Your task to perform on an android device: Open display settings Image 0: 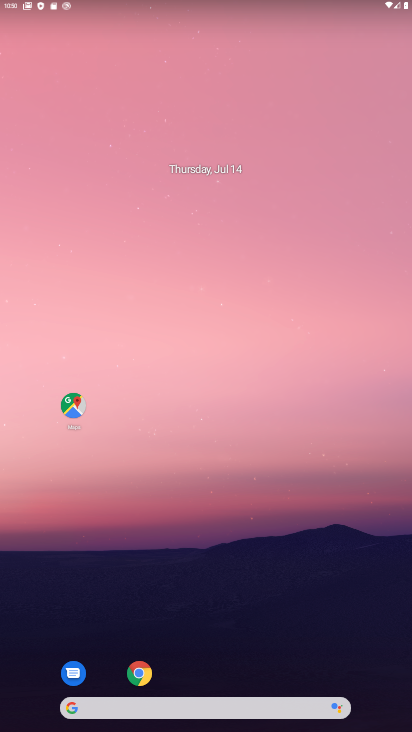
Step 0: drag from (227, 705) to (313, 96)
Your task to perform on an android device: Open display settings Image 1: 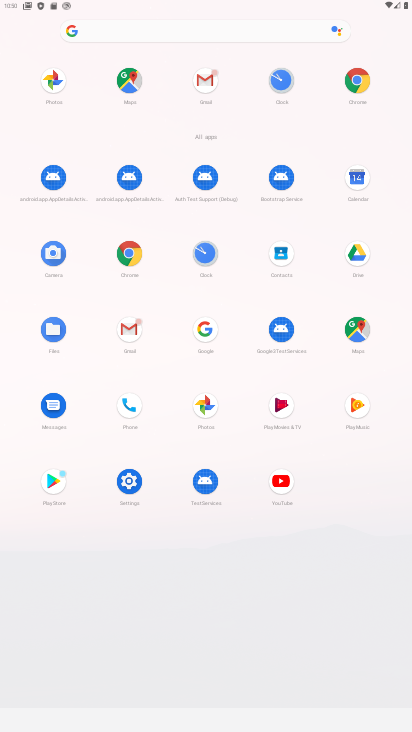
Step 1: click (134, 467)
Your task to perform on an android device: Open display settings Image 2: 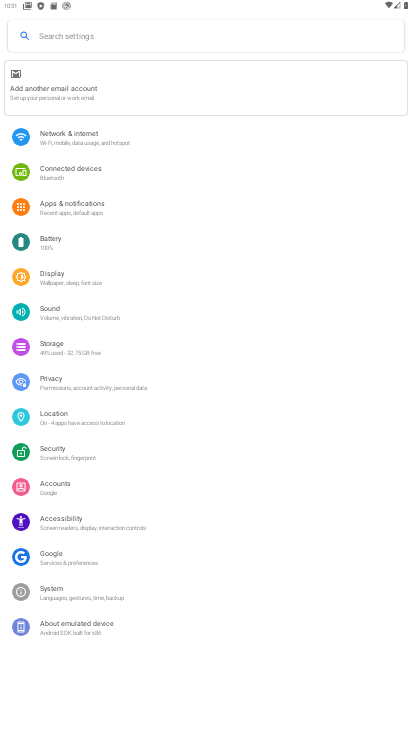
Step 2: click (83, 278)
Your task to perform on an android device: Open display settings Image 3: 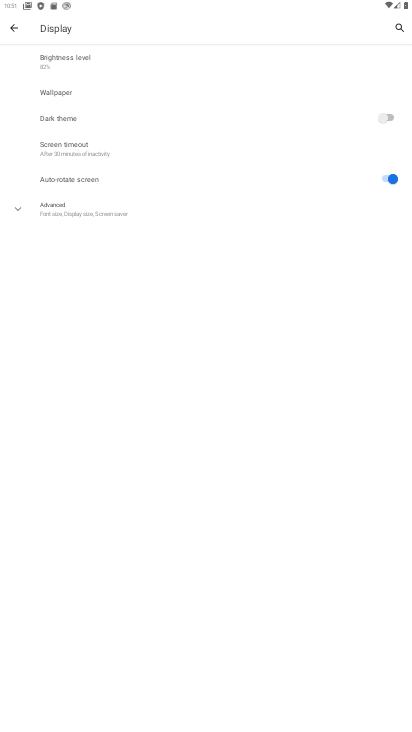
Step 3: click (174, 226)
Your task to perform on an android device: Open display settings Image 4: 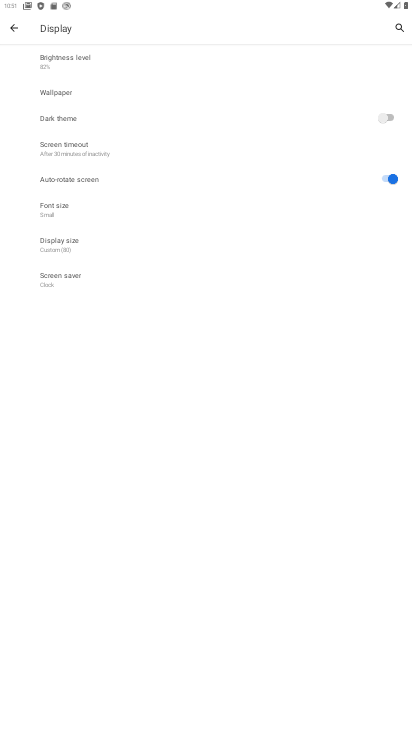
Step 4: task complete